Your task to perform on an android device: Show me the alarms in the clock app Image 0: 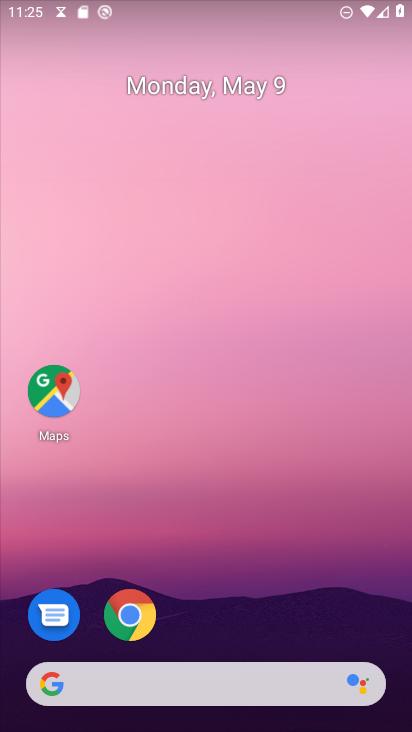
Step 0: drag from (243, 726) to (244, 138)
Your task to perform on an android device: Show me the alarms in the clock app Image 1: 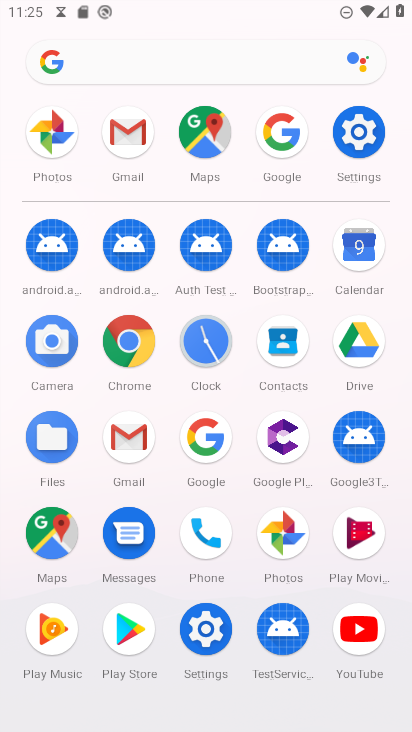
Step 1: click (203, 337)
Your task to perform on an android device: Show me the alarms in the clock app Image 2: 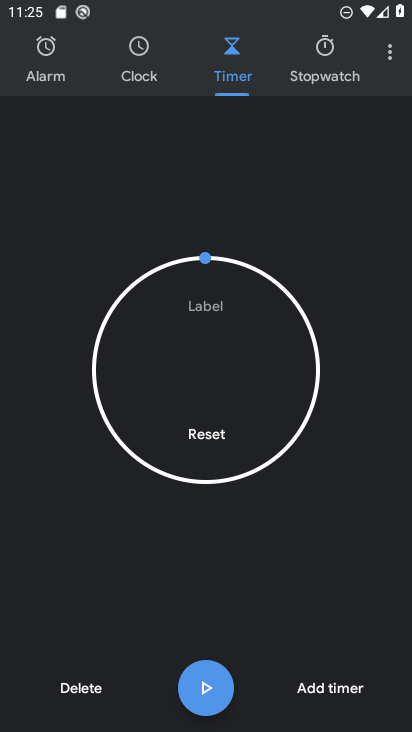
Step 2: click (46, 61)
Your task to perform on an android device: Show me the alarms in the clock app Image 3: 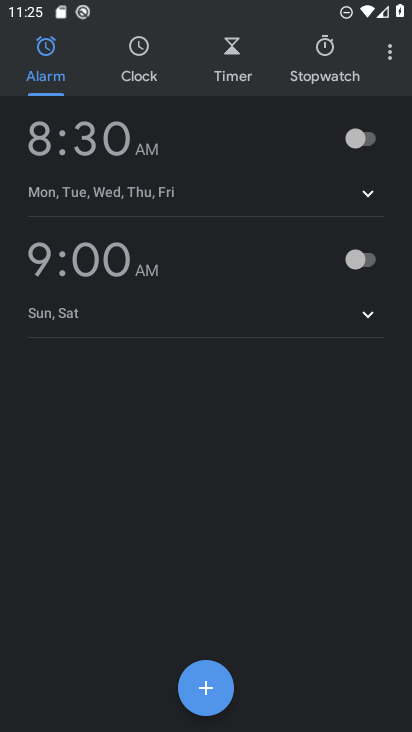
Step 3: task complete